Your task to perform on an android device: turn on notifications settings in the gmail app Image 0: 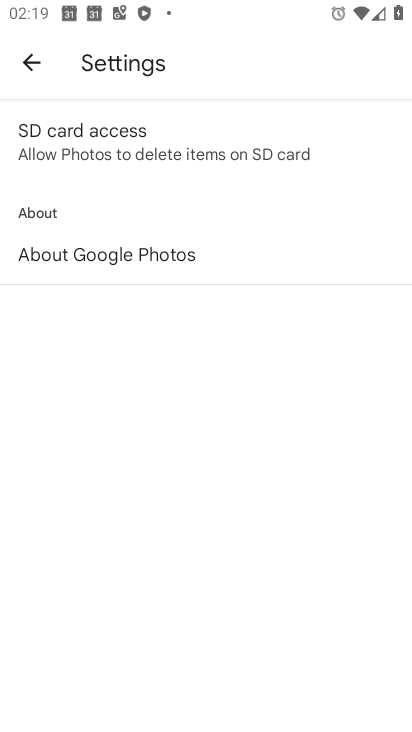
Step 0: press home button
Your task to perform on an android device: turn on notifications settings in the gmail app Image 1: 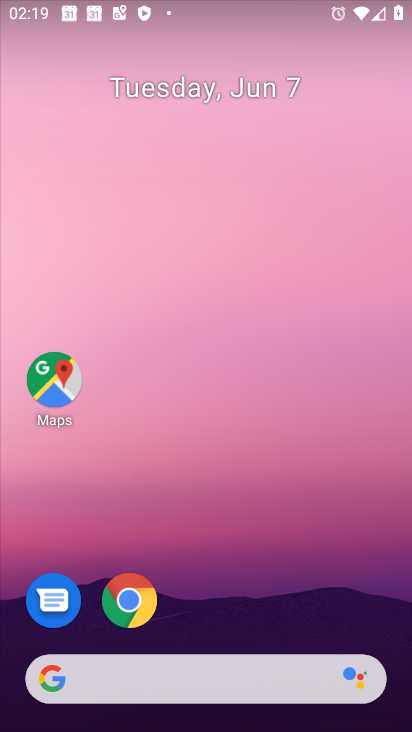
Step 1: drag from (210, 691) to (209, 170)
Your task to perform on an android device: turn on notifications settings in the gmail app Image 2: 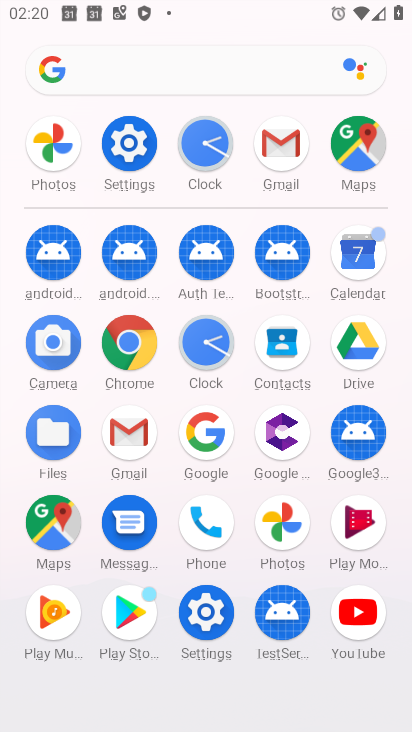
Step 2: click (122, 436)
Your task to perform on an android device: turn on notifications settings in the gmail app Image 3: 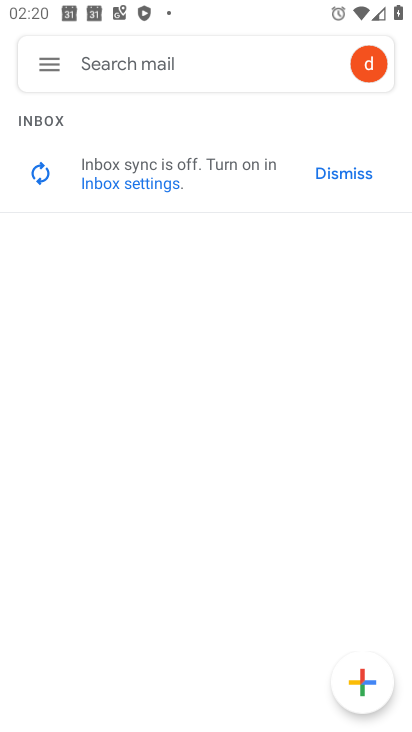
Step 3: click (46, 65)
Your task to perform on an android device: turn on notifications settings in the gmail app Image 4: 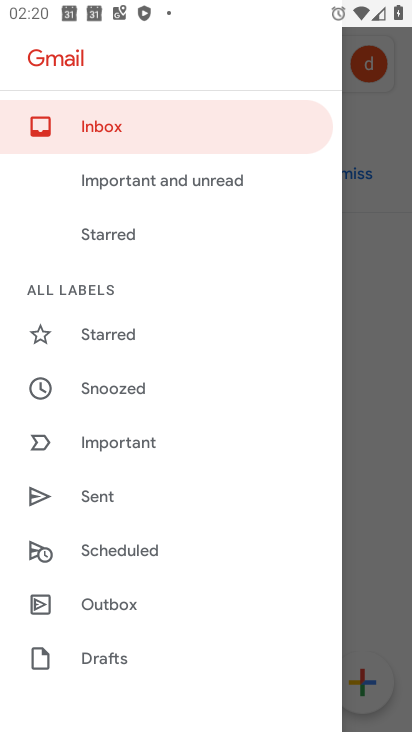
Step 4: drag from (138, 639) to (138, 248)
Your task to perform on an android device: turn on notifications settings in the gmail app Image 5: 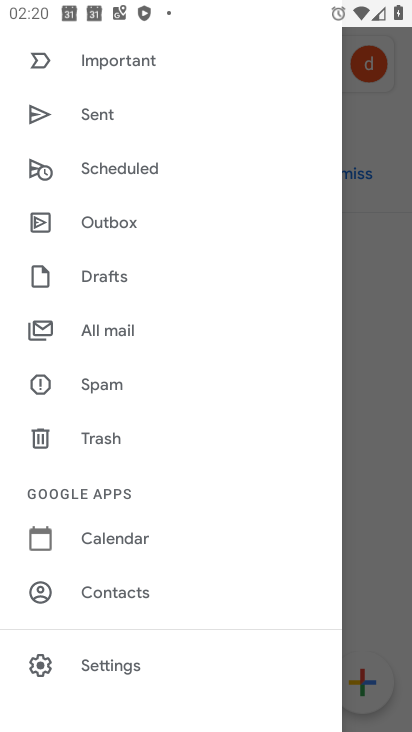
Step 5: click (115, 664)
Your task to perform on an android device: turn on notifications settings in the gmail app Image 6: 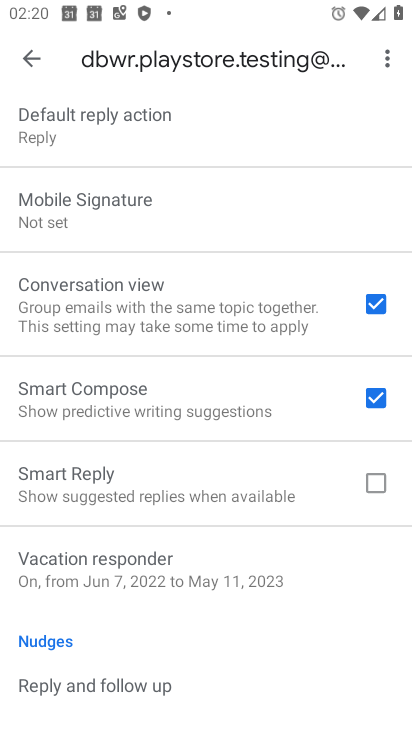
Step 6: drag from (183, 173) to (162, 508)
Your task to perform on an android device: turn on notifications settings in the gmail app Image 7: 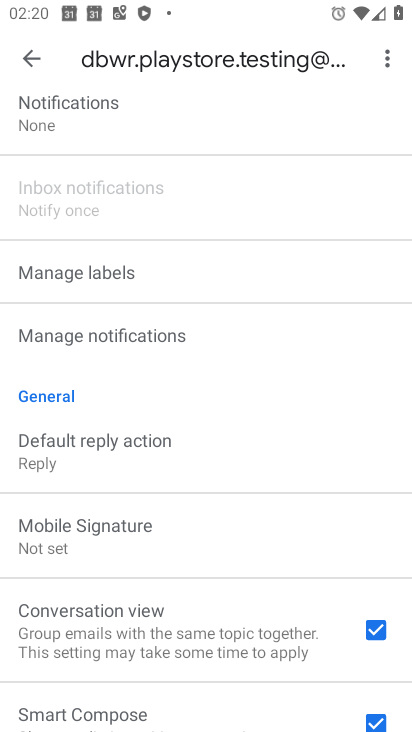
Step 7: drag from (167, 319) to (181, 550)
Your task to perform on an android device: turn on notifications settings in the gmail app Image 8: 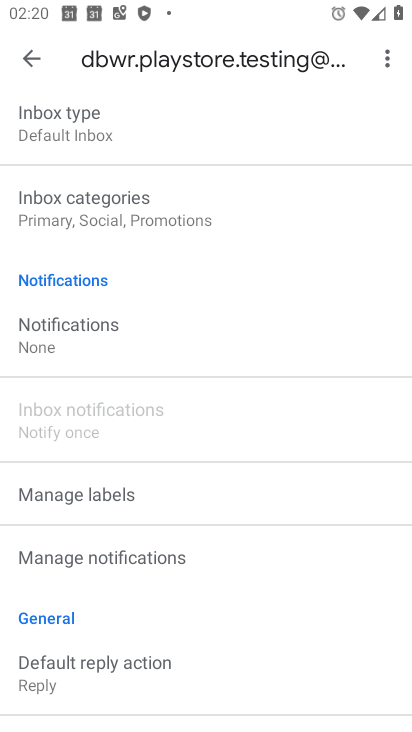
Step 8: drag from (204, 230) to (205, 416)
Your task to perform on an android device: turn on notifications settings in the gmail app Image 9: 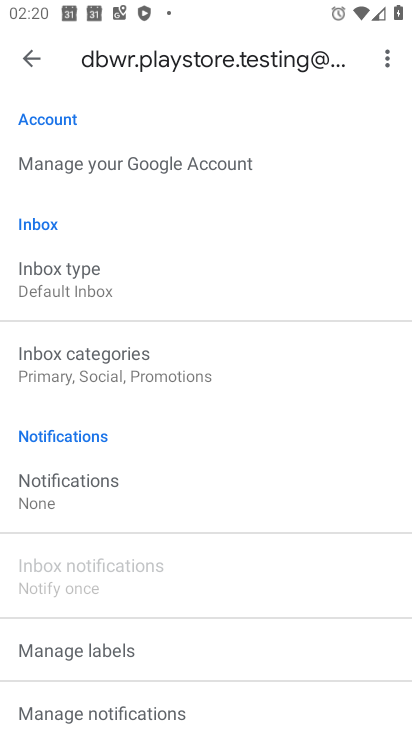
Step 9: click (48, 491)
Your task to perform on an android device: turn on notifications settings in the gmail app Image 10: 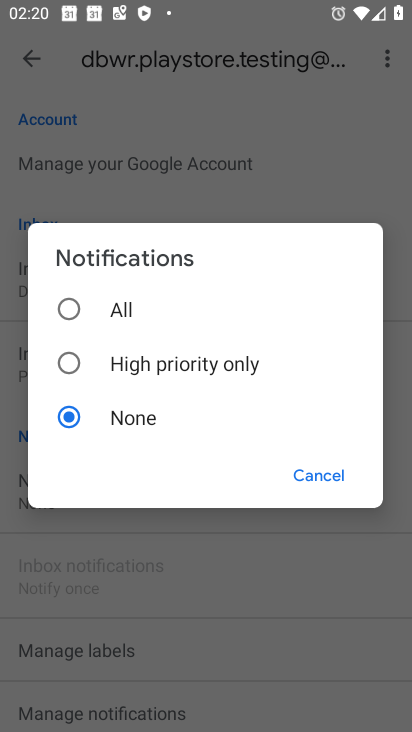
Step 10: click (69, 303)
Your task to perform on an android device: turn on notifications settings in the gmail app Image 11: 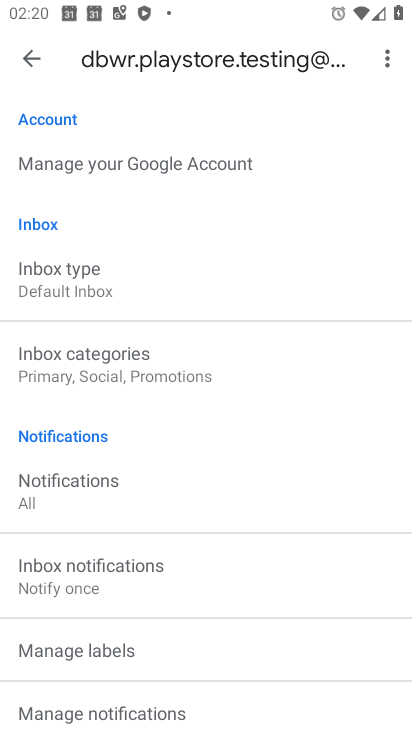
Step 11: task complete